Your task to perform on an android device: turn smart compose on in the gmail app Image 0: 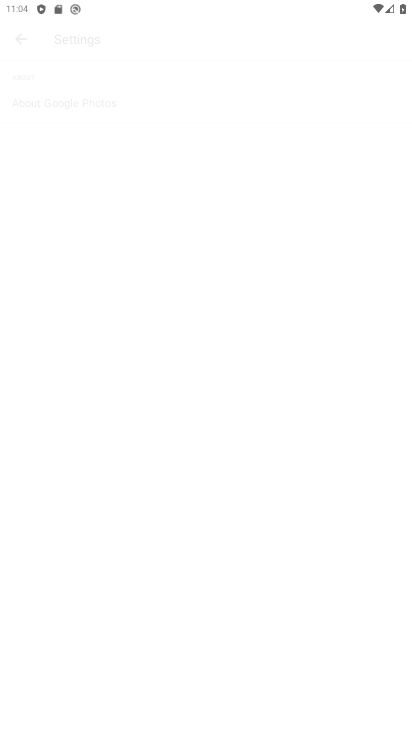
Step 0: drag from (334, 594) to (334, 84)
Your task to perform on an android device: turn smart compose on in the gmail app Image 1: 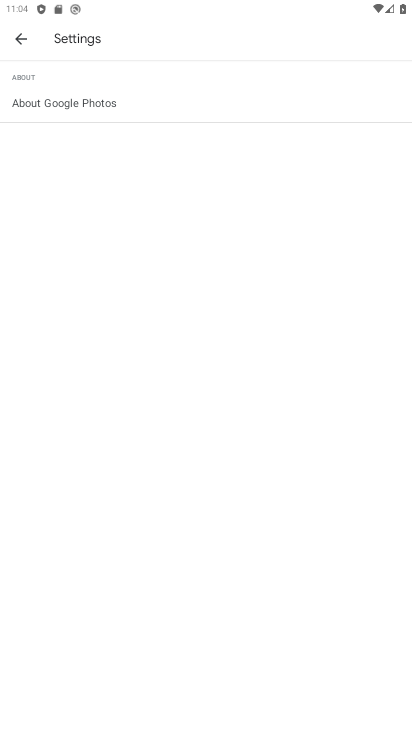
Step 1: press home button
Your task to perform on an android device: turn smart compose on in the gmail app Image 2: 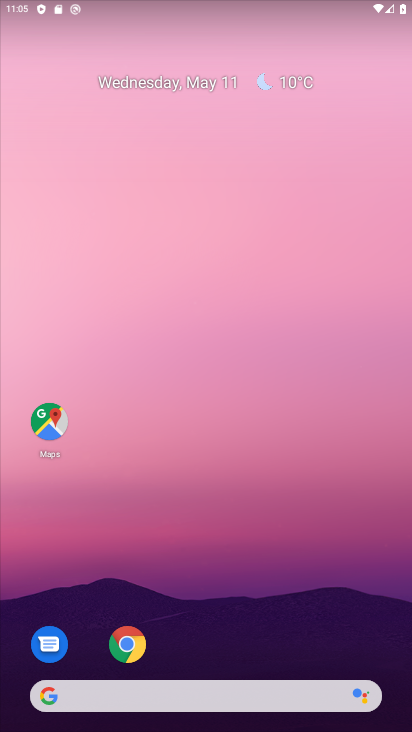
Step 2: drag from (281, 540) to (261, 49)
Your task to perform on an android device: turn smart compose on in the gmail app Image 3: 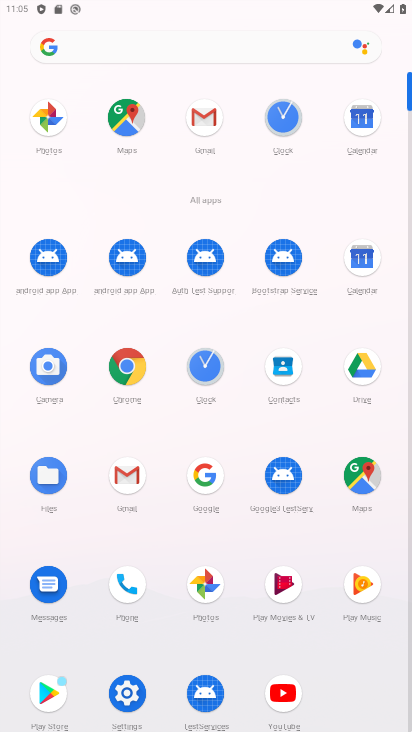
Step 3: click (133, 480)
Your task to perform on an android device: turn smart compose on in the gmail app Image 4: 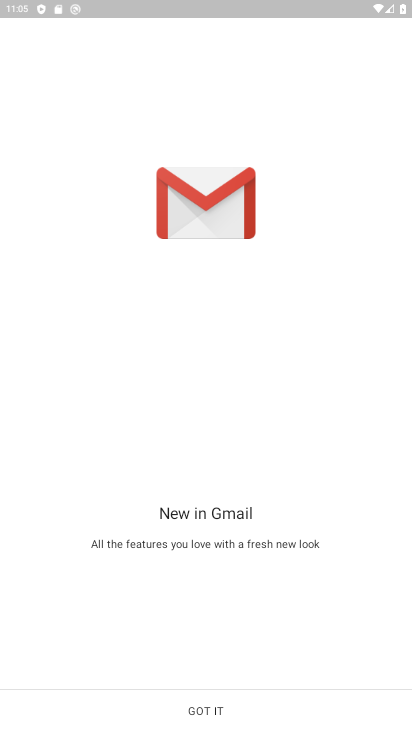
Step 4: click (194, 694)
Your task to perform on an android device: turn smart compose on in the gmail app Image 5: 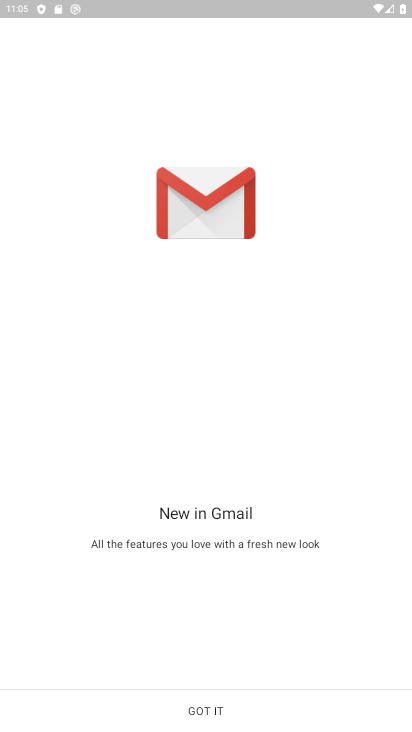
Step 5: click (187, 705)
Your task to perform on an android device: turn smart compose on in the gmail app Image 6: 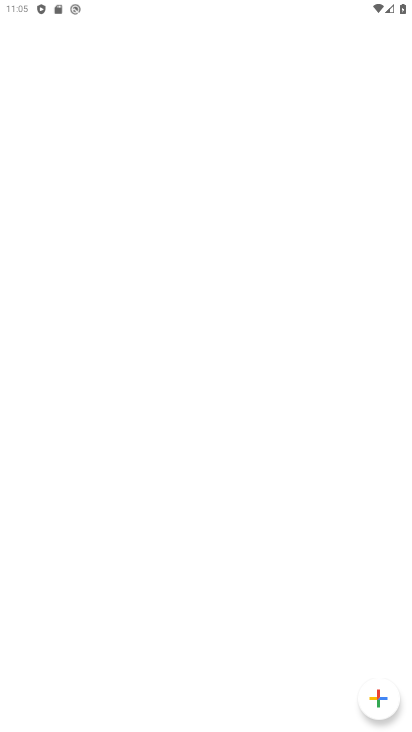
Step 6: click (185, 704)
Your task to perform on an android device: turn smart compose on in the gmail app Image 7: 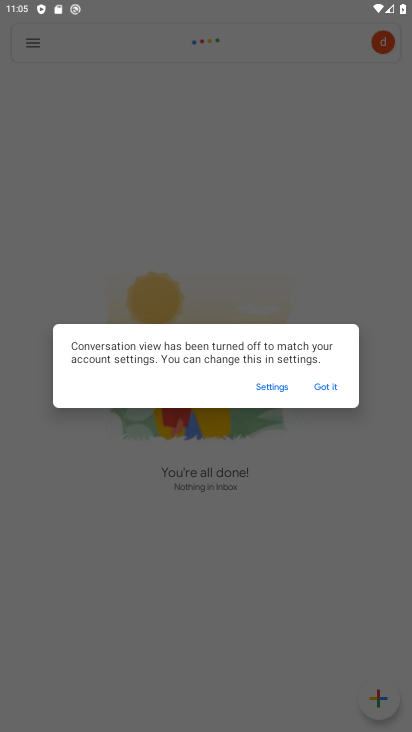
Step 7: click (314, 385)
Your task to perform on an android device: turn smart compose on in the gmail app Image 8: 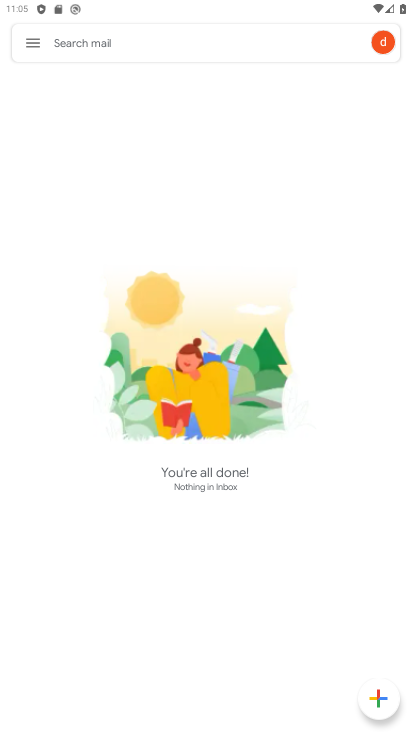
Step 8: click (30, 50)
Your task to perform on an android device: turn smart compose on in the gmail app Image 9: 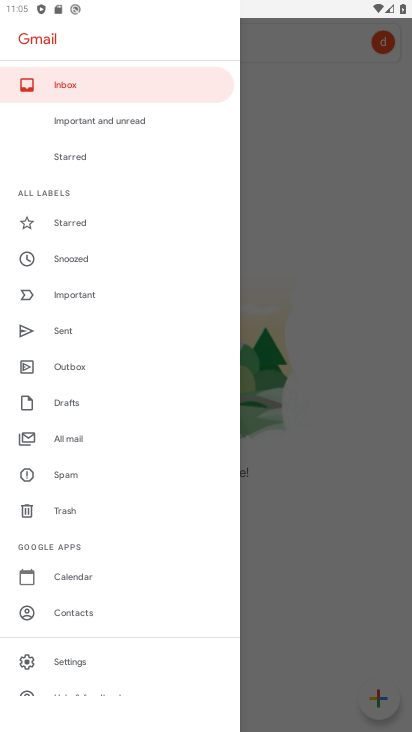
Step 9: drag from (169, 608) to (128, 153)
Your task to perform on an android device: turn smart compose on in the gmail app Image 10: 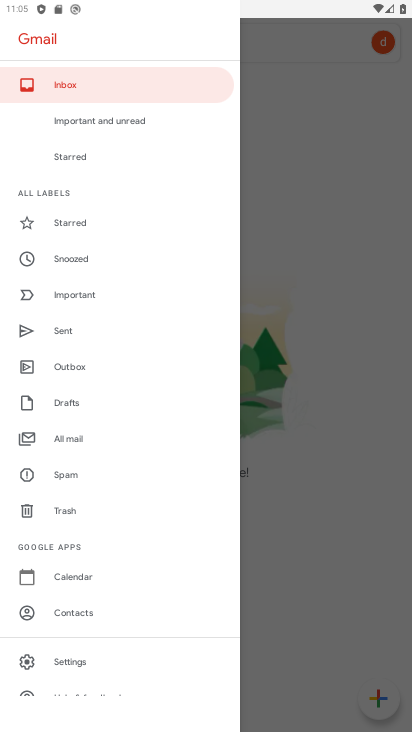
Step 10: drag from (42, 651) to (46, 212)
Your task to perform on an android device: turn smart compose on in the gmail app Image 11: 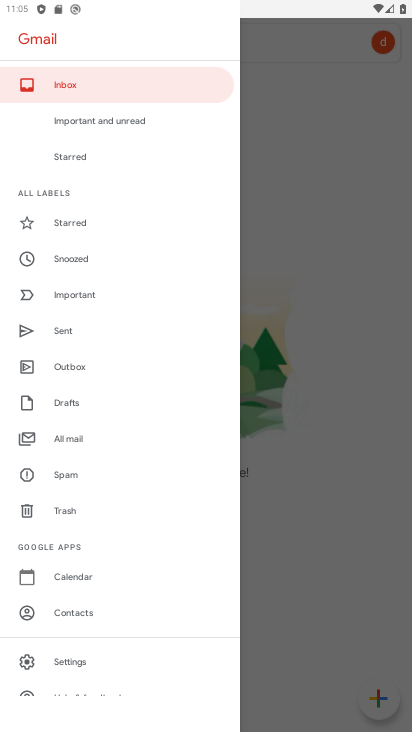
Step 11: click (65, 661)
Your task to perform on an android device: turn smart compose on in the gmail app Image 12: 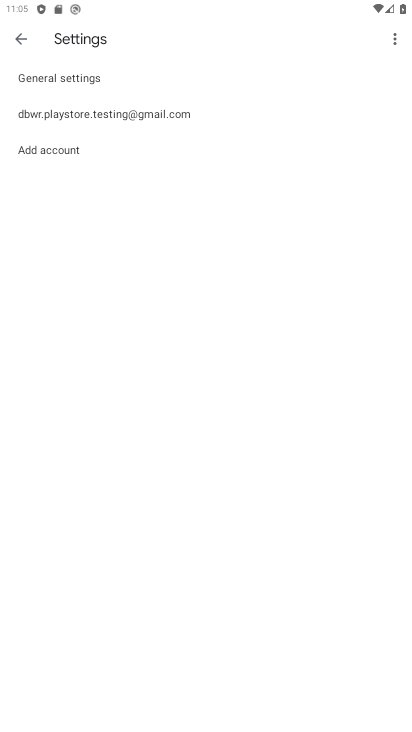
Step 12: click (58, 114)
Your task to perform on an android device: turn smart compose on in the gmail app Image 13: 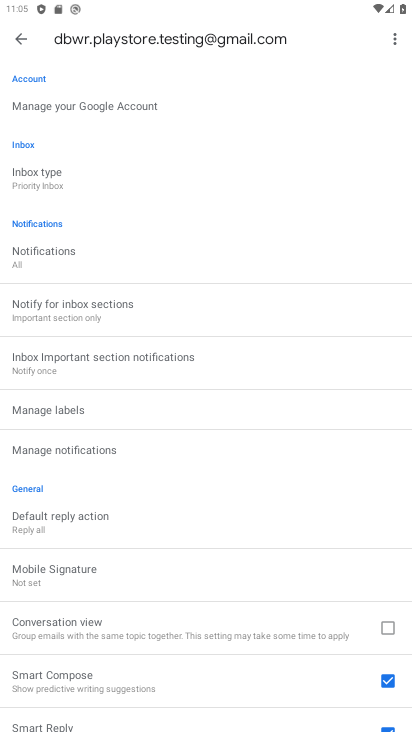
Step 13: task complete